Your task to perform on an android device: Open location settings Image 0: 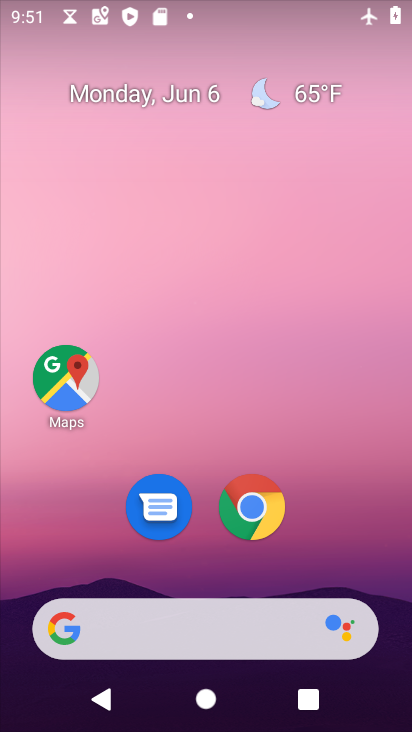
Step 0: drag from (298, 554) to (294, 199)
Your task to perform on an android device: Open location settings Image 1: 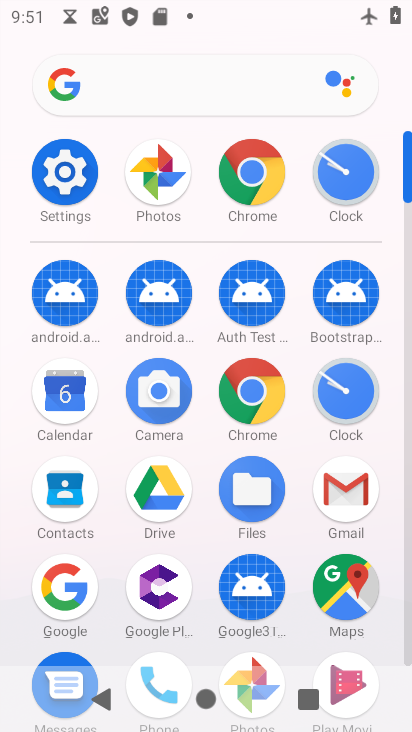
Step 1: click (70, 170)
Your task to perform on an android device: Open location settings Image 2: 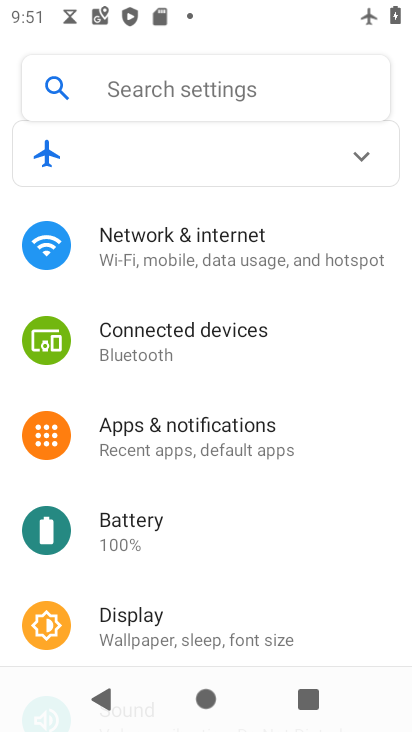
Step 2: drag from (136, 607) to (210, 263)
Your task to perform on an android device: Open location settings Image 3: 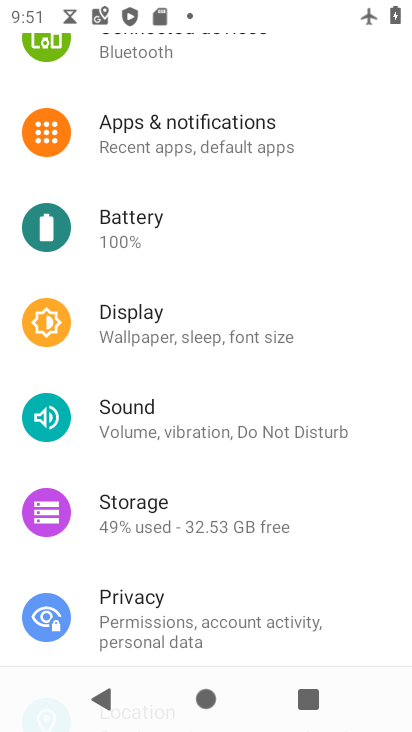
Step 3: drag from (143, 576) to (181, 252)
Your task to perform on an android device: Open location settings Image 4: 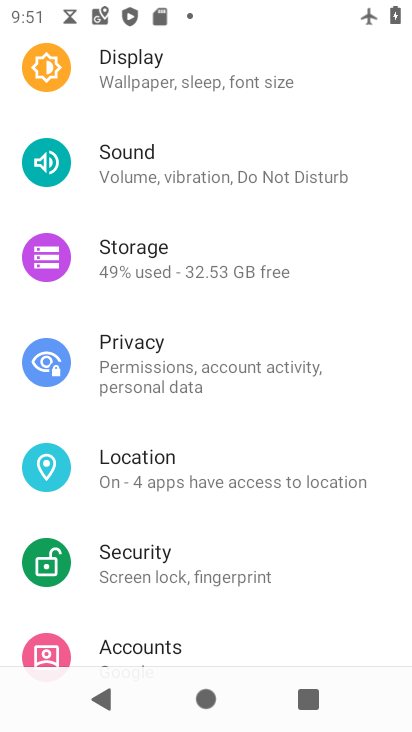
Step 4: click (146, 471)
Your task to perform on an android device: Open location settings Image 5: 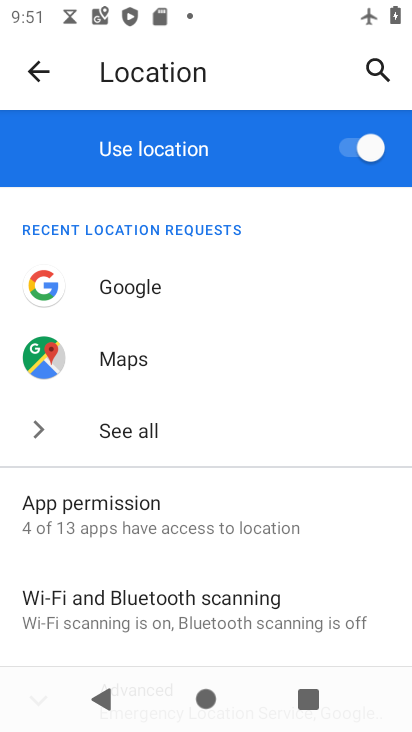
Step 5: task complete